Your task to perform on an android device: open chrome privacy settings Image 0: 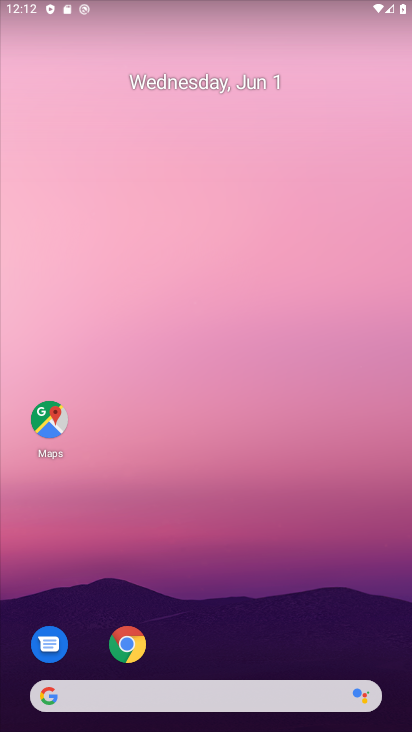
Step 0: click (128, 651)
Your task to perform on an android device: open chrome privacy settings Image 1: 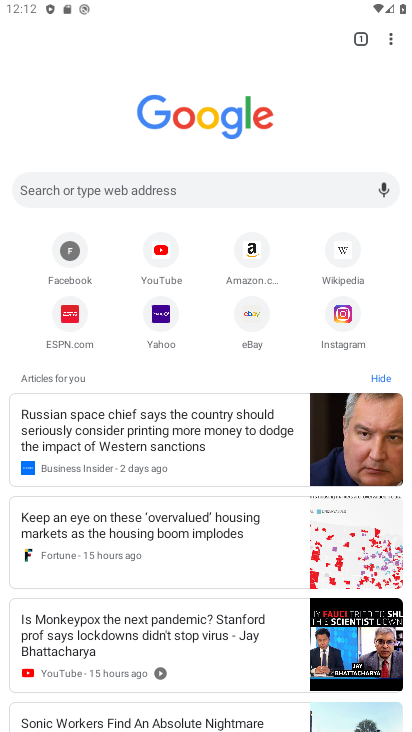
Step 1: drag from (381, 40) to (273, 327)
Your task to perform on an android device: open chrome privacy settings Image 2: 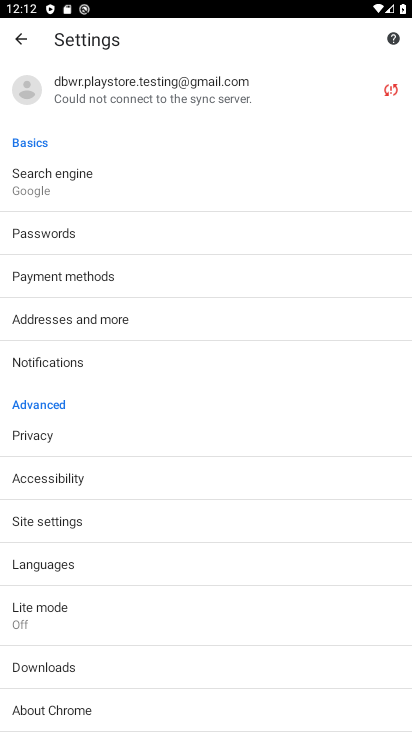
Step 2: click (61, 423)
Your task to perform on an android device: open chrome privacy settings Image 3: 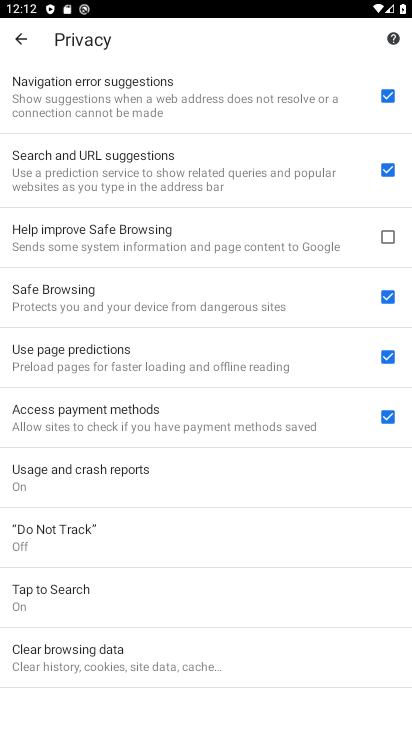
Step 3: task complete